Your task to perform on an android device: open chrome and create a bookmark for the current page Image 0: 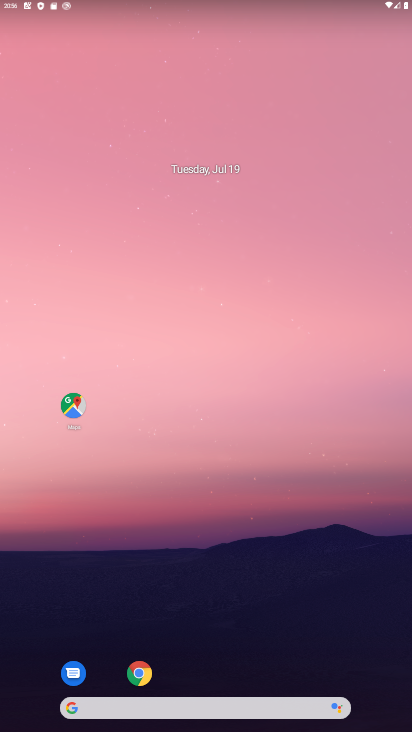
Step 0: click (140, 667)
Your task to perform on an android device: open chrome and create a bookmark for the current page Image 1: 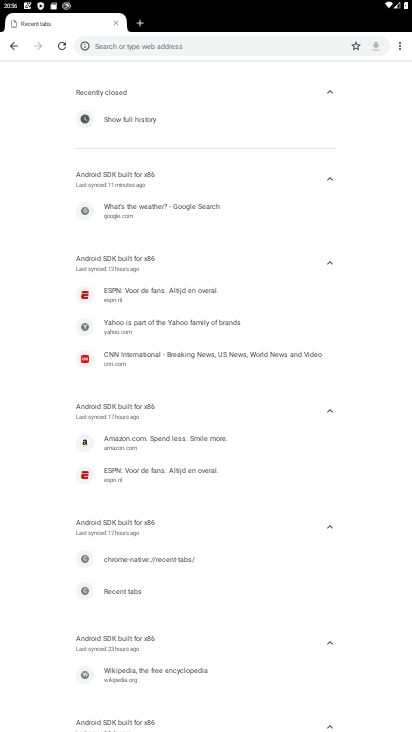
Step 1: click (353, 47)
Your task to perform on an android device: open chrome and create a bookmark for the current page Image 2: 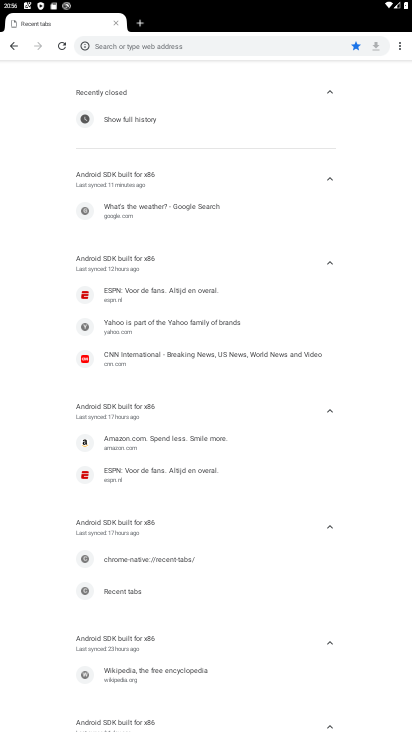
Step 2: task complete